Your task to perform on an android device: turn off smart reply in the gmail app Image 0: 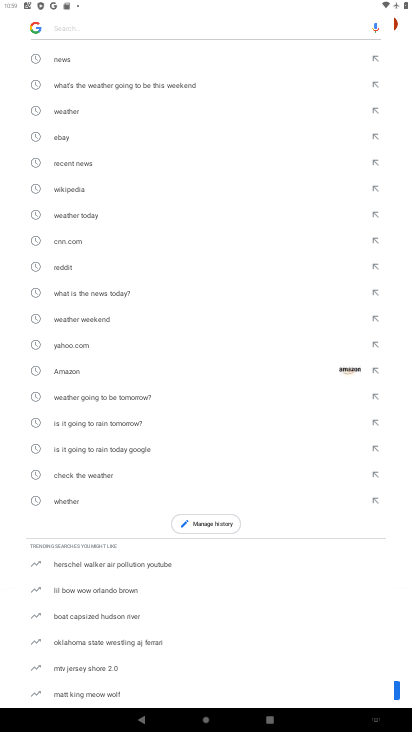
Step 0: press home button
Your task to perform on an android device: turn off smart reply in the gmail app Image 1: 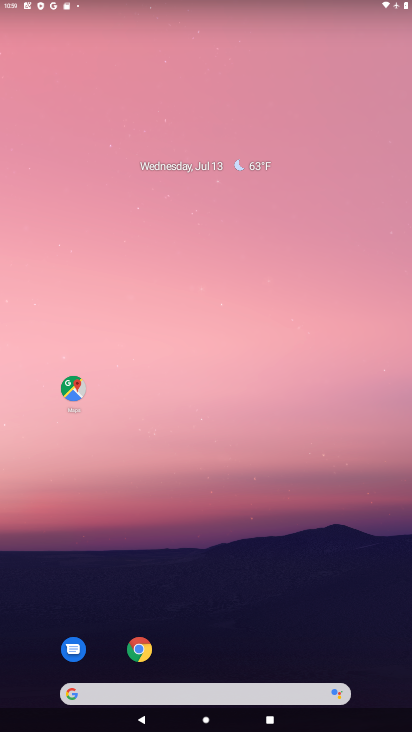
Step 1: drag from (157, 559) to (172, 142)
Your task to perform on an android device: turn off smart reply in the gmail app Image 2: 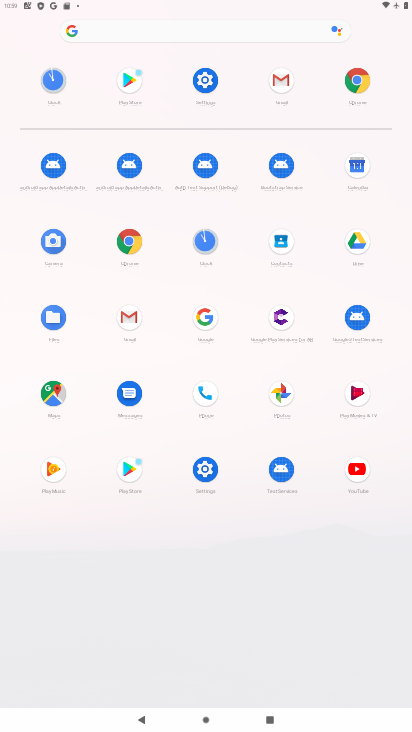
Step 2: click (132, 319)
Your task to perform on an android device: turn off smart reply in the gmail app Image 3: 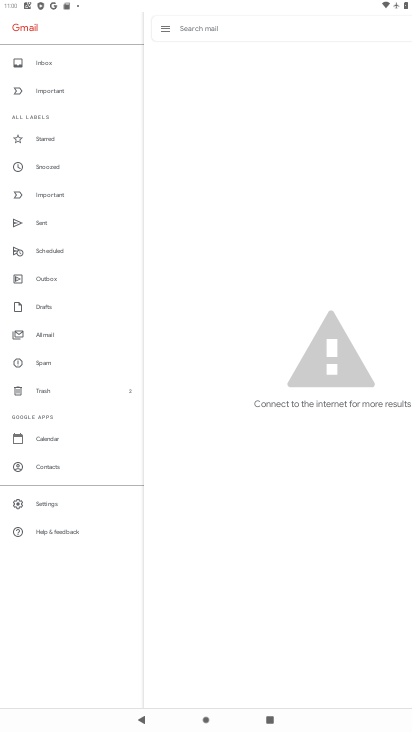
Step 3: click (65, 493)
Your task to perform on an android device: turn off smart reply in the gmail app Image 4: 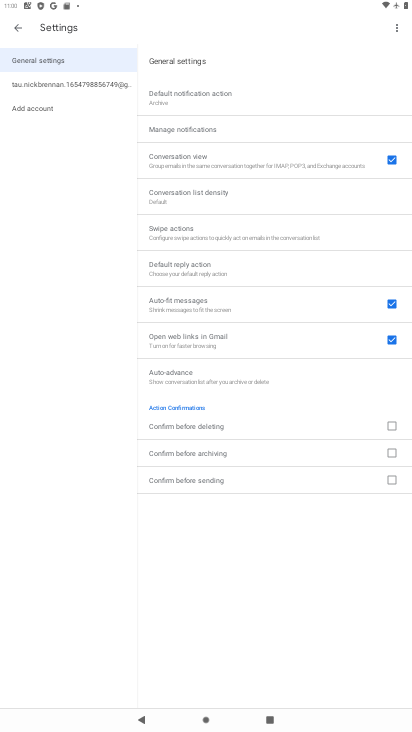
Step 4: click (61, 82)
Your task to perform on an android device: turn off smart reply in the gmail app Image 5: 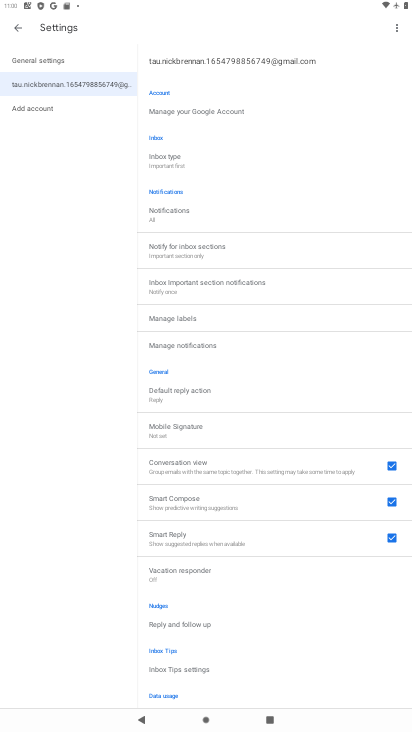
Step 5: click (397, 534)
Your task to perform on an android device: turn off smart reply in the gmail app Image 6: 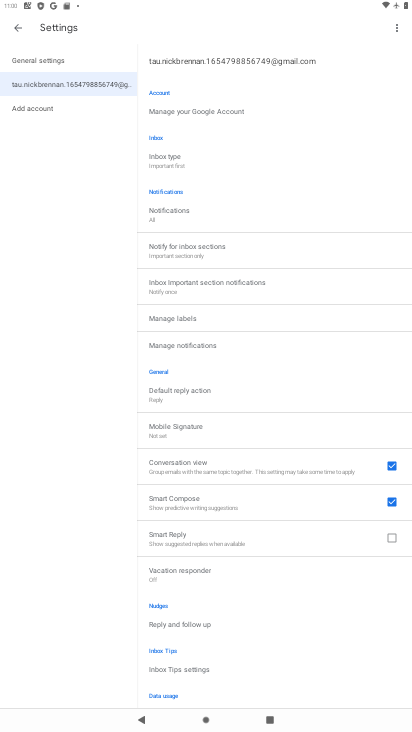
Step 6: task complete